Your task to perform on an android device: check out phone information Image 0: 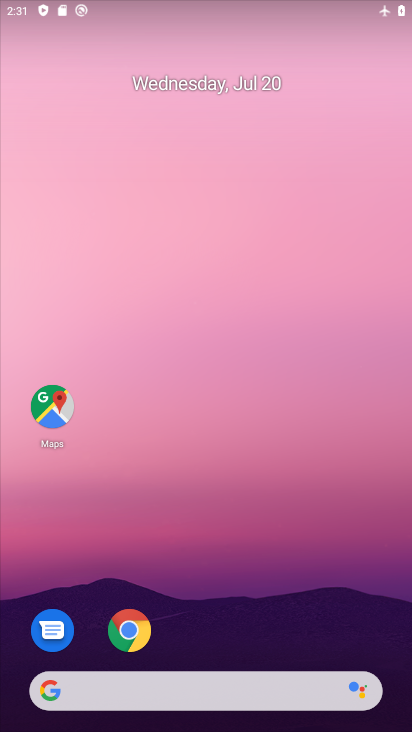
Step 0: drag from (180, 464) to (179, 266)
Your task to perform on an android device: check out phone information Image 1: 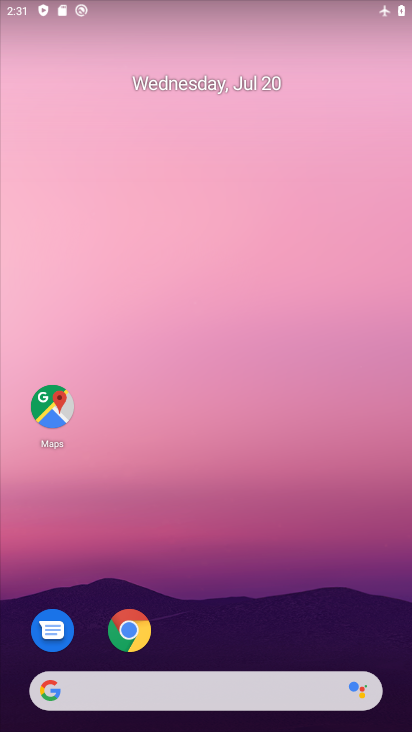
Step 1: drag from (254, 331) to (236, 209)
Your task to perform on an android device: check out phone information Image 2: 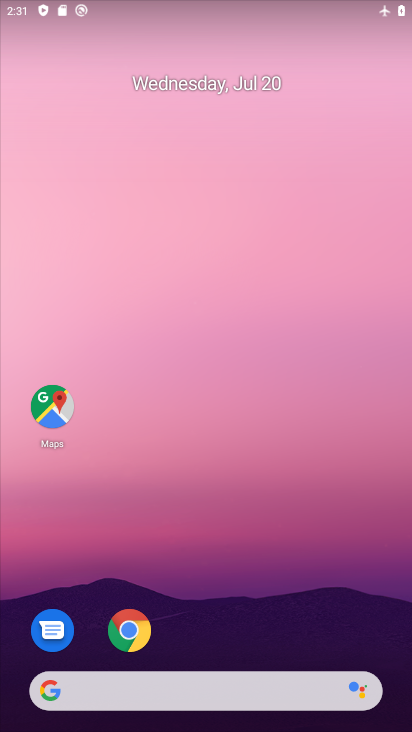
Step 2: drag from (256, 618) to (218, 208)
Your task to perform on an android device: check out phone information Image 3: 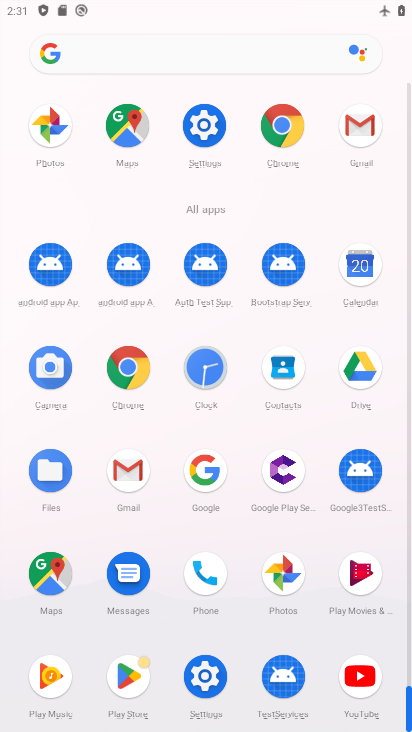
Step 3: click (204, 123)
Your task to perform on an android device: check out phone information Image 4: 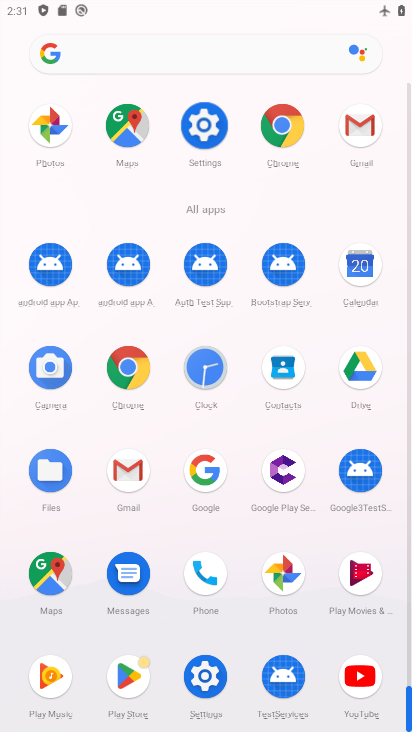
Step 4: click (204, 123)
Your task to perform on an android device: check out phone information Image 5: 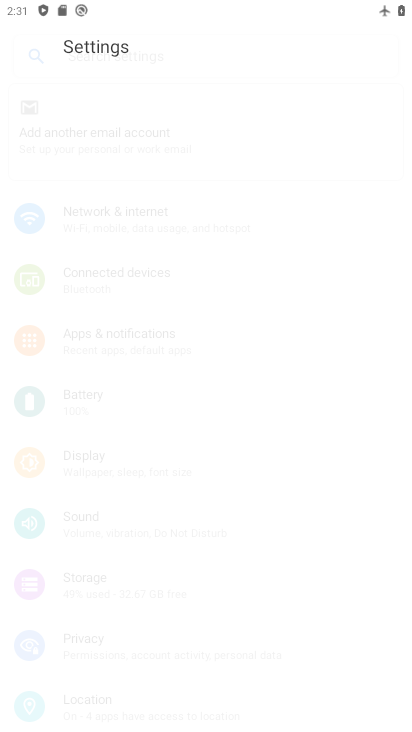
Step 5: click (204, 123)
Your task to perform on an android device: check out phone information Image 6: 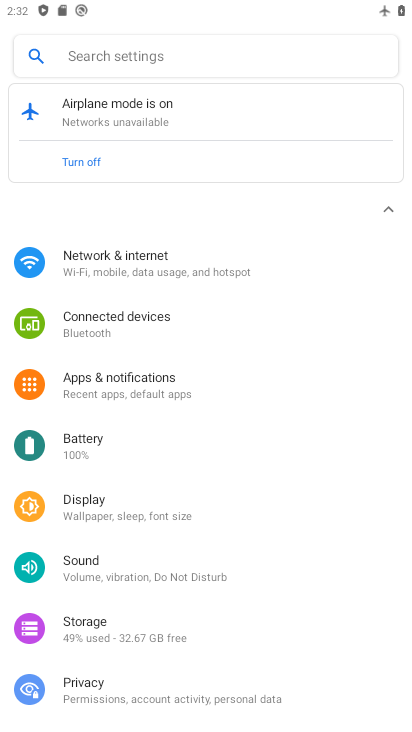
Step 6: drag from (161, 513) to (193, 378)
Your task to perform on an android device: check out phone information Image 7: 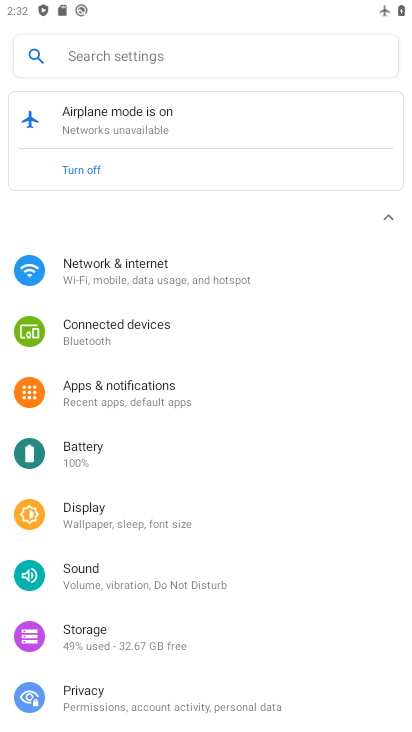
Step 7: drag from (121, 665) to (120, 344)
Your task to perform on an android device: check out phone information Image 8: 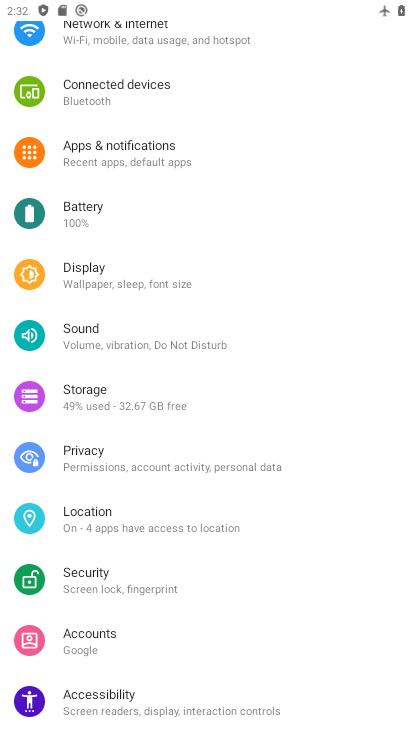
Step 8: drag from (166, 563) to (183, 255)
Your task to perform on an android device: check out phone information Image 9: 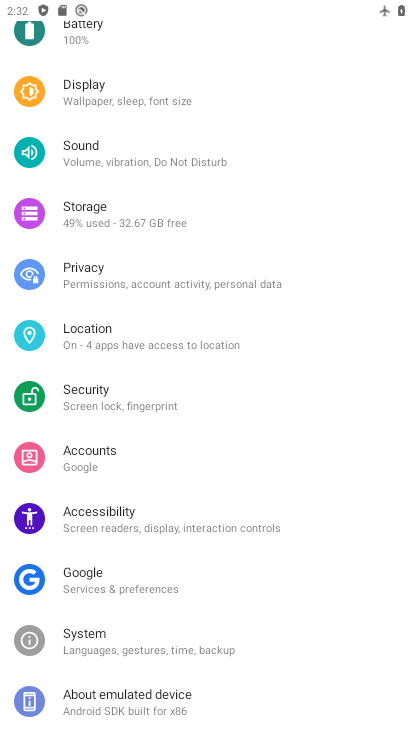
Step 9: click (90, 328)
Your task to perform on an android device: check out phone information Image 10: 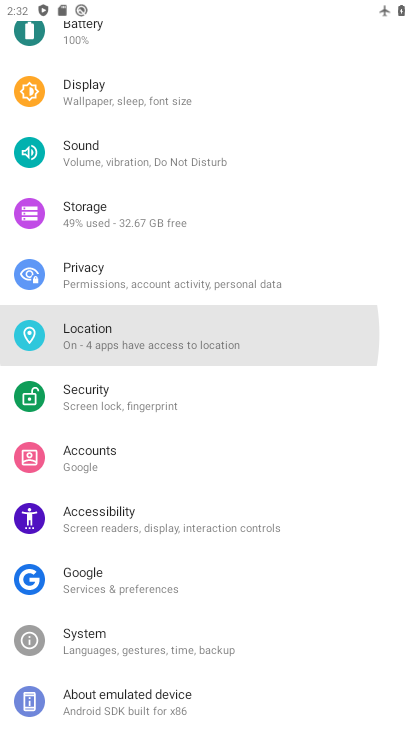
Step 10: click (90, 328)
Your task to perform on an android device: check out phone information Image 11: 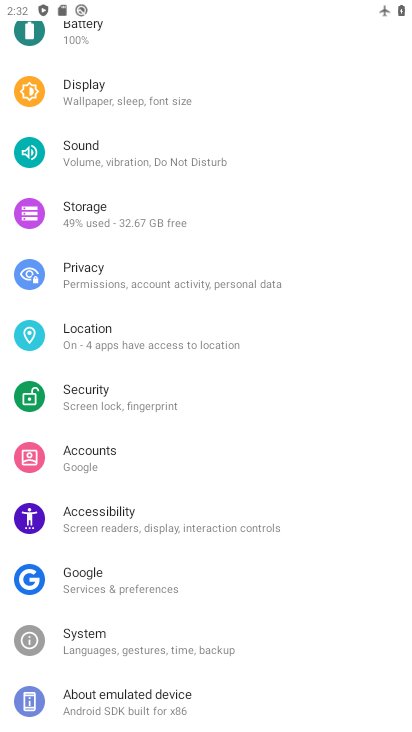
Step 11: click (90, 328)
Your task to perform on an android device: check out phone information Image 12: 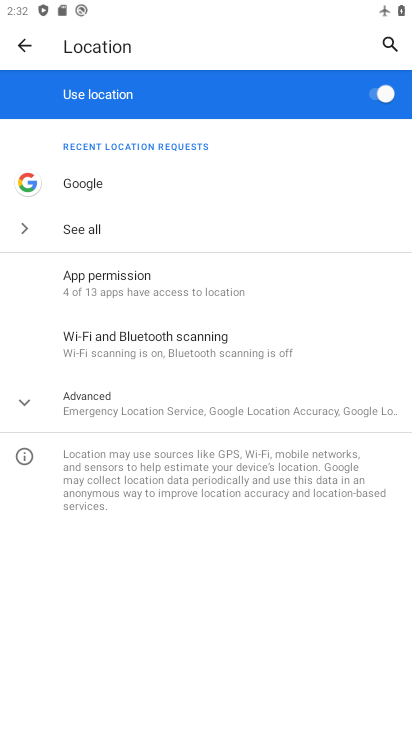
Step 12: click (86, 276)
Your task to perform on an android device: check out phone information Image 13: 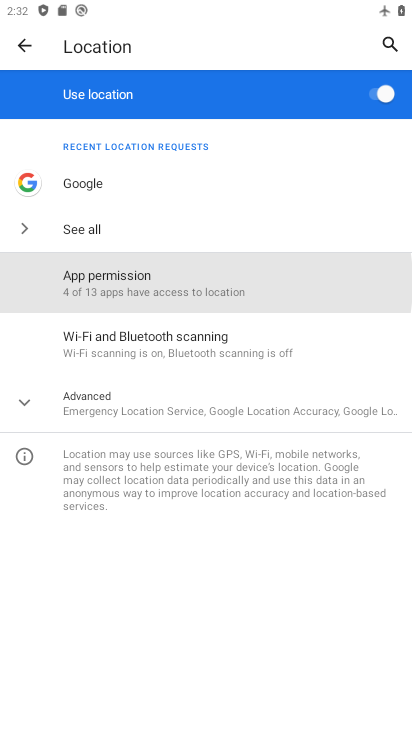
Step 13: click (88, 276)
Your task to perform on an android device: check out phone information Image 14: 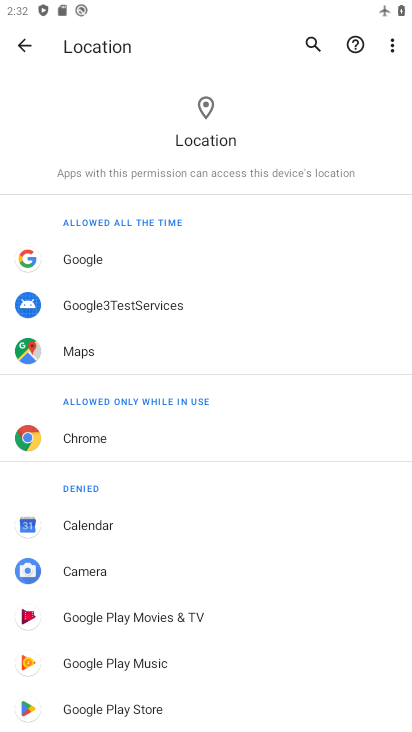
Step 14: click (18, 47)
Your task to perform on an android device: check out phone information Image 15: 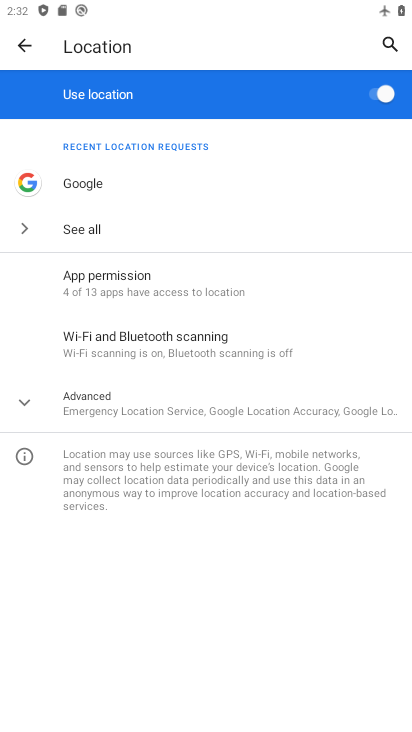
Step 15: click (28, 42)
Your task to perform on an android device: check out phone information Image 16: 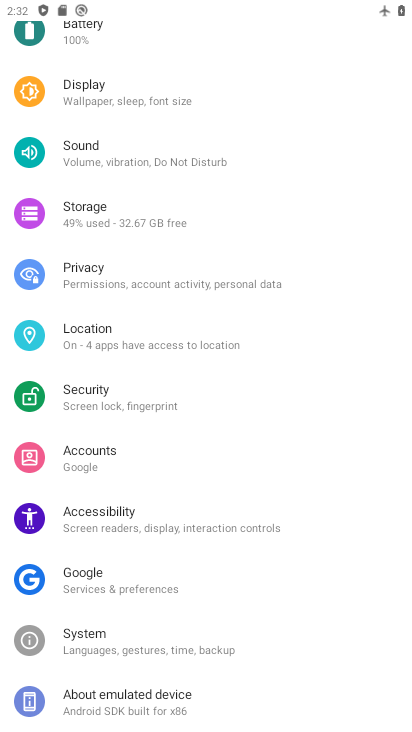
Step 16: click (119, 685)
Your task to perform on an android device: check out phone information Image 17: 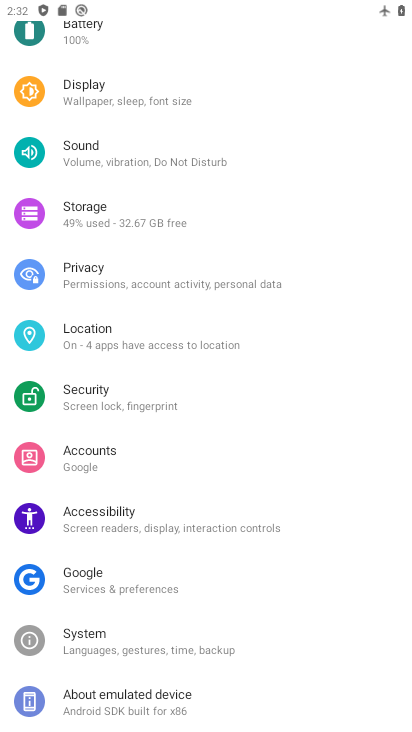
Step 17: click (117, 702)
Your task to perform on an android device: check out phone information Image 18: 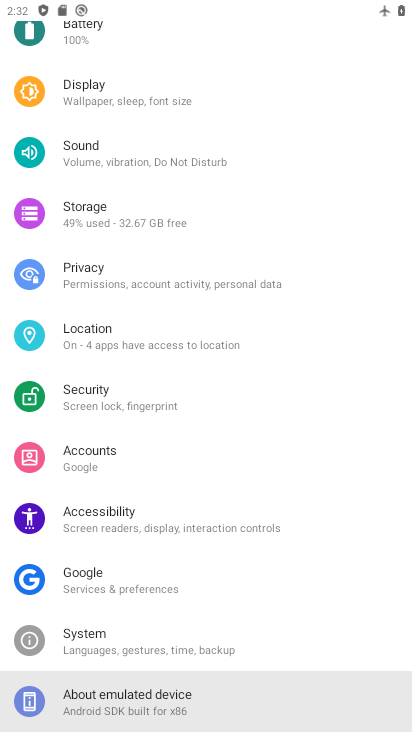
Step 18: click (119, 698)
Your task to perform on an android device: check out phone information Image 19: 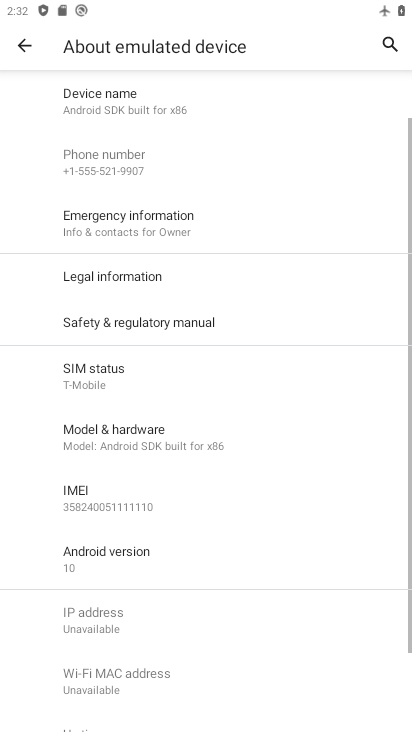
Step 19: task complete